Your task to perform on an android device: Open location settings Image 0: 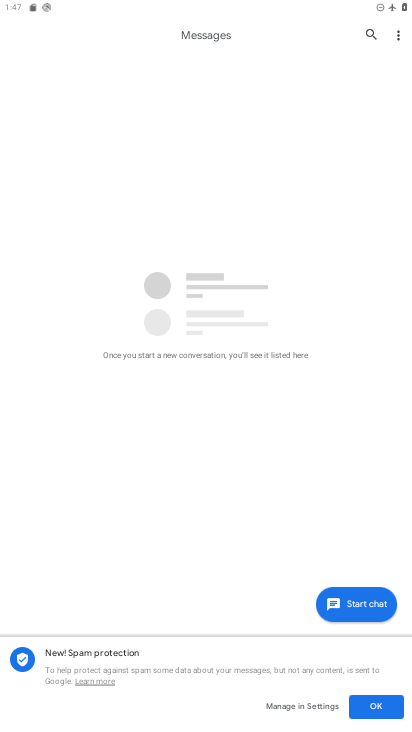
Step 0: press home button
Your task to perform on an android device: Open location settings Image 1: 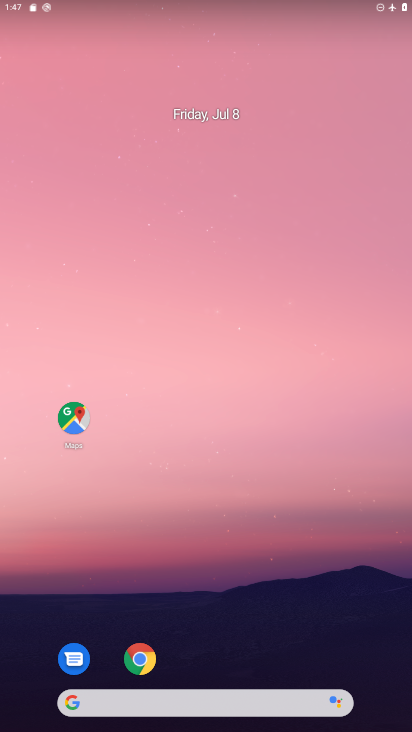
Step 1: drag from (252, 673) to (304, 64)
Your task to perform on an android device: Open location settings Image 2: 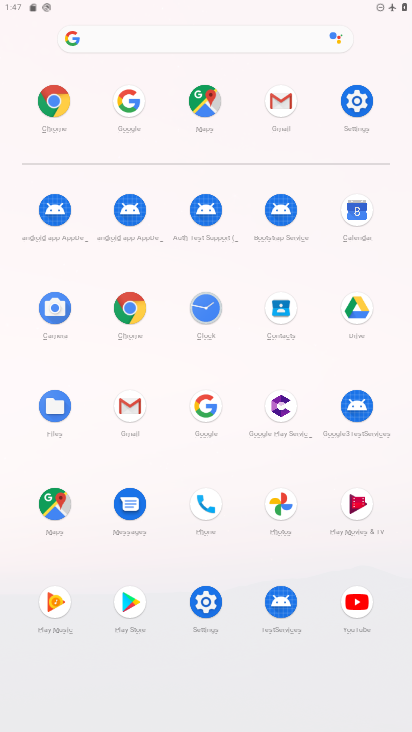
Step 2: click (356, 102)
Your task to perform on an android device: Open location settings Image 3: 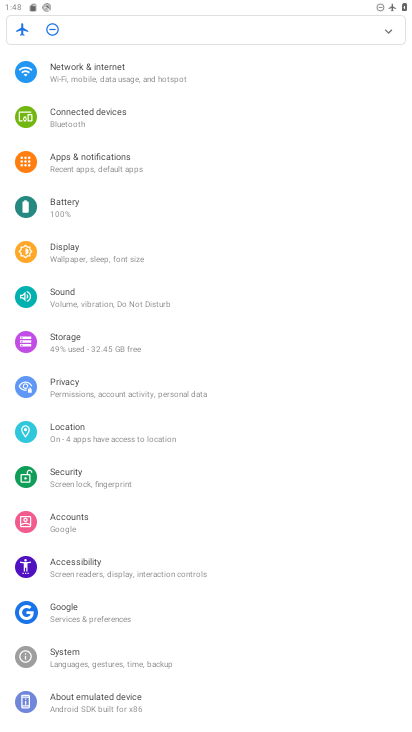
Step 3: click (89, 434)
Your task to perform on an android device: Open location settings Image 4: 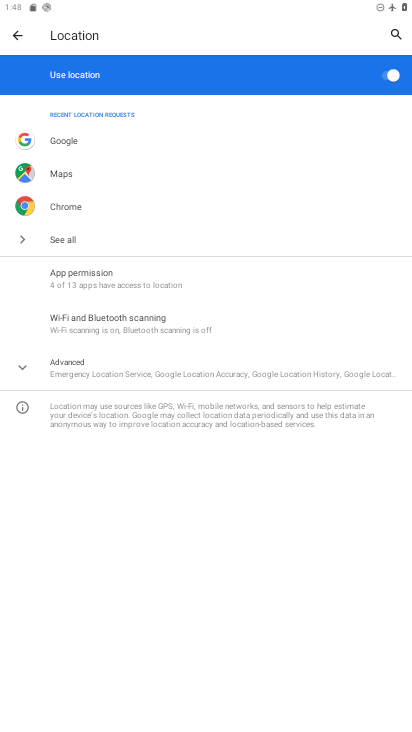
Step 4: task complete